Your task to perform on an android device: manage bookmarks in the chrome app Image 0: 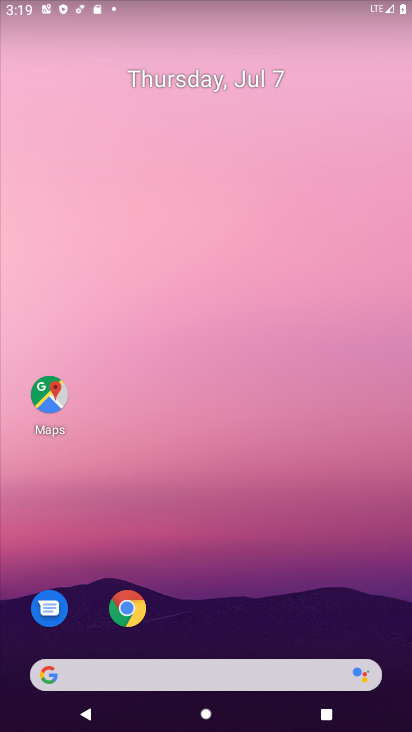
Step 0: click (128, 607)
Your task to perform on an android device: manage bookmarks in the chrome app Image 1: 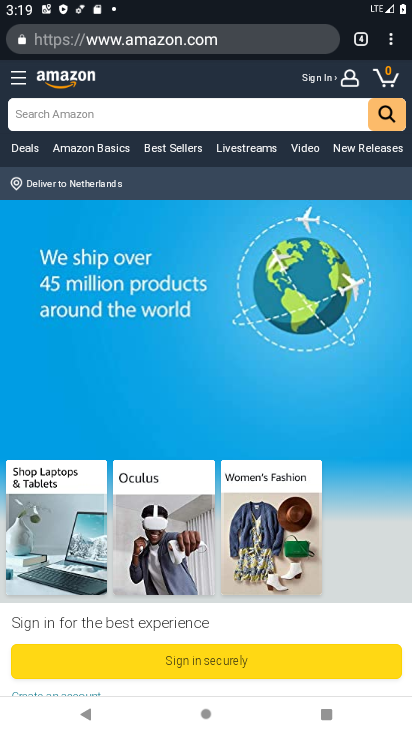
Step 1: click (391, 44)
Your task to perform on an android device: manage bookmarks in the chrome app Image 2: 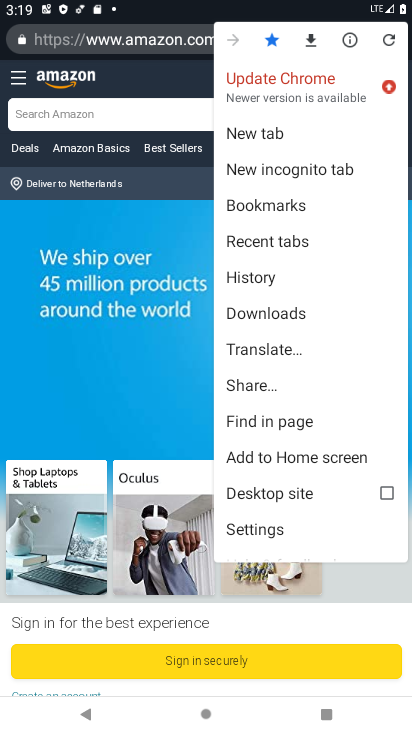
Step 2: click (254, 209)
Your task to perform on an android device: manage bookmarks in the chrome app Image 3: 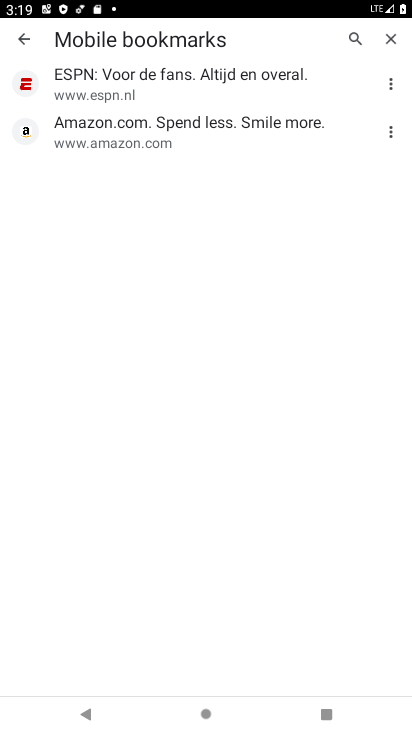
Step 3: click (131, 128)
Your task to perform on an android device: manage bookmarks in the chrome app Image 4: 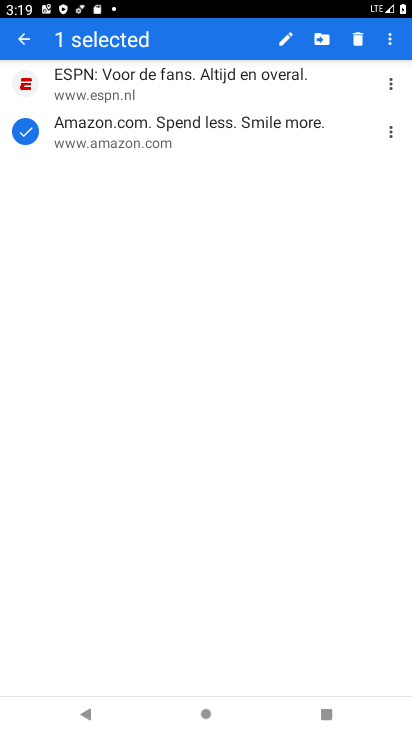
Step 4: click (322, 39)
Your task to perform on an android device: manage bookmarks in the chrome app Image 5: 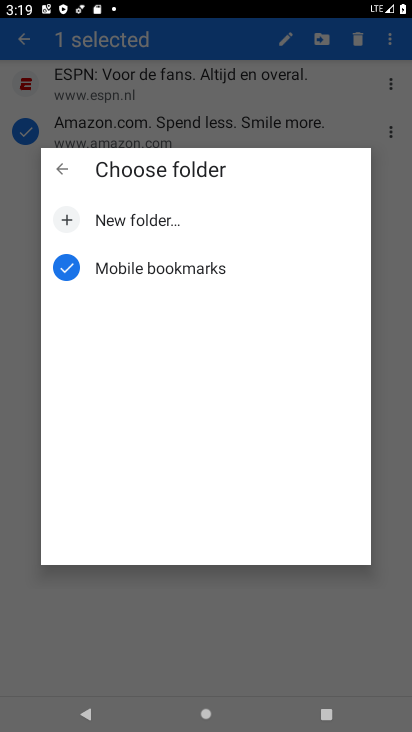
Step 5: click (64, 217)
Your task to perform on an android device: manage bookmarks in the chrome app Image 6: 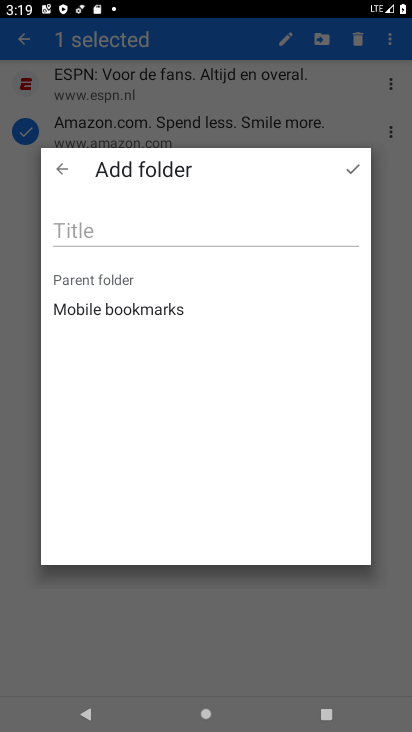
Step 6: click (77, 227)
Your task to perform on an android device: manage bookmarks in the chrome app Image 7: 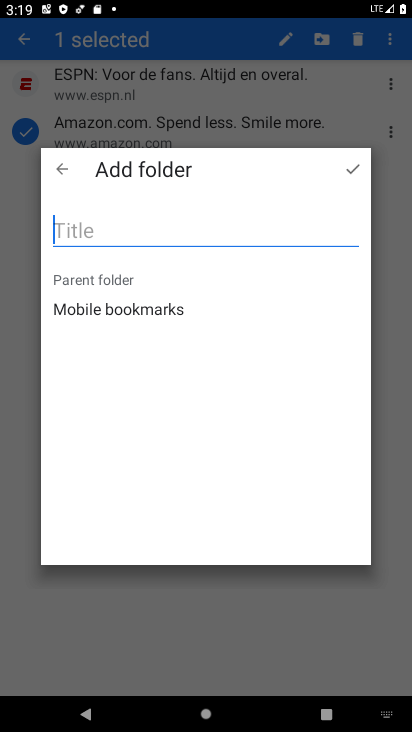
Step 7: type "jghf"
Your task to perform on an android device: manage bookmarks in the chrome app Image 8: 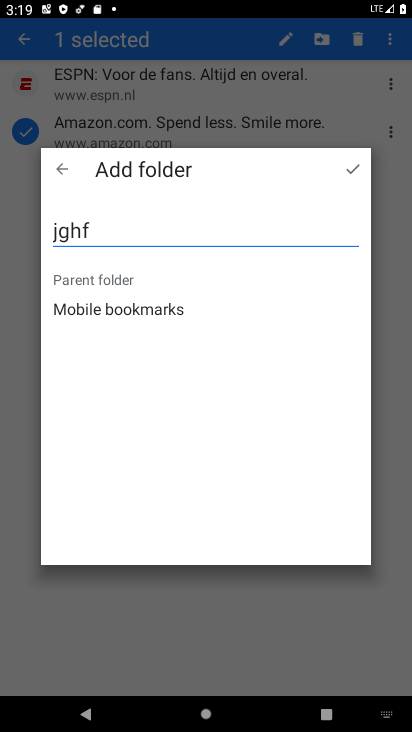
Step 8: click (351, 169)
Your task to perform on an android device: manage bookmarks in the chrome app Image 9: 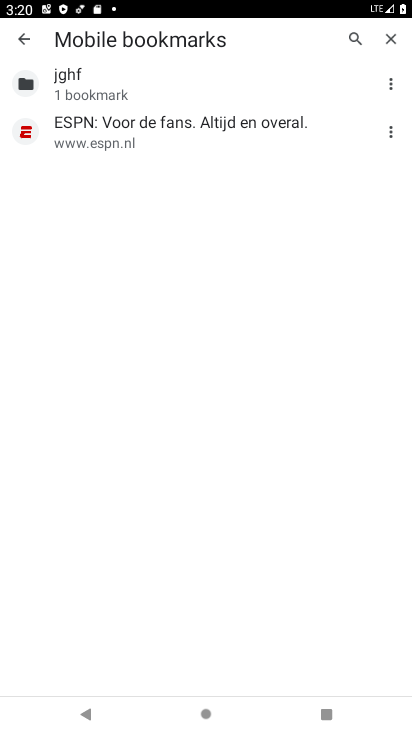
Step 9: task complete